Your task to perform on an android device: Open Google Maps Image 0: 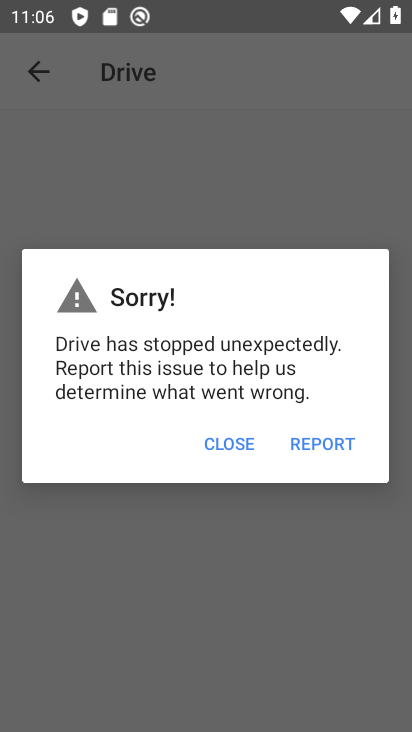
Step 0: press home button
Your task to perform on an android device: Open Google Maps Image 1: 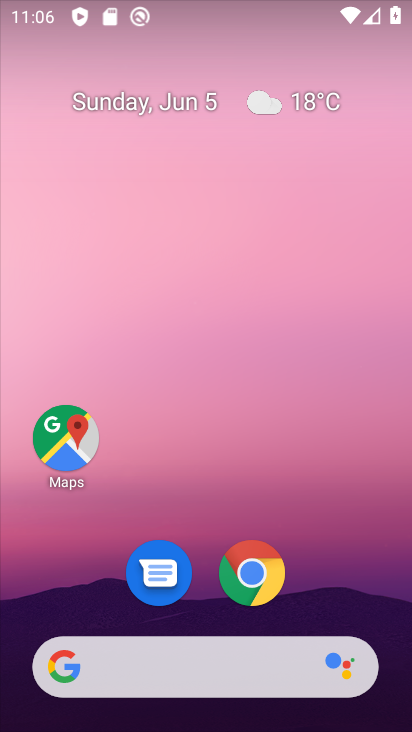
Step 1: click (66, 437)
Your task to perform on an android device: Open Google Maps Image 2: 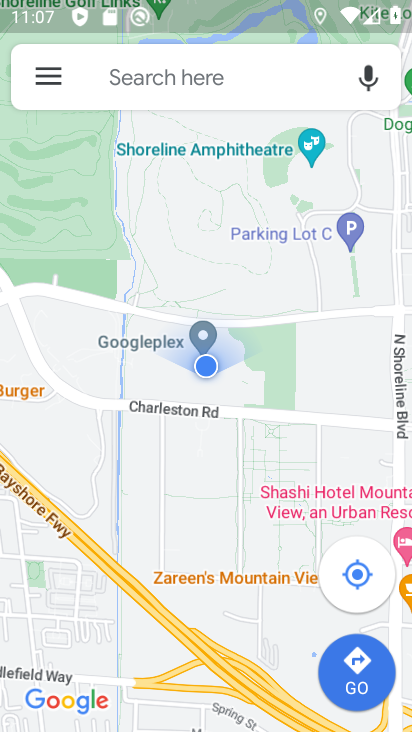
Step 2: task complete